Your task to perform on an android device: Open maps Image 0: 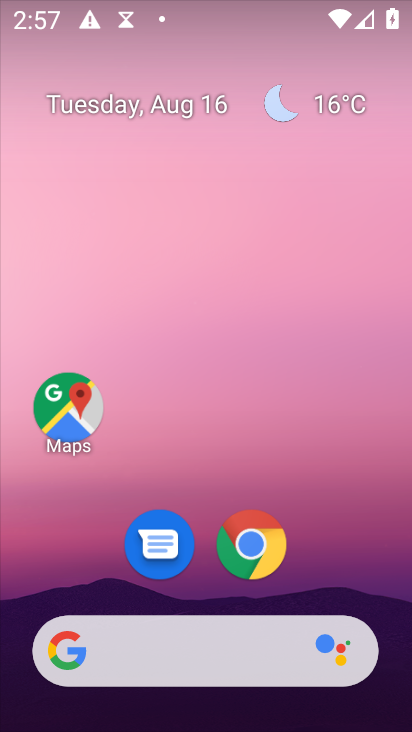
Step 0: drag from (212, 671) to (240, 97)
Your task to perform on an android device: Open maps Image 1: 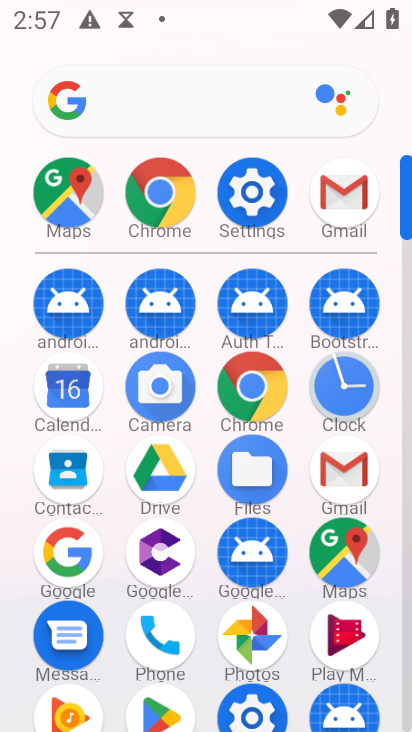
Step 1: click (66, 195)
Your task to perform on an android device: Open maps Image 2: 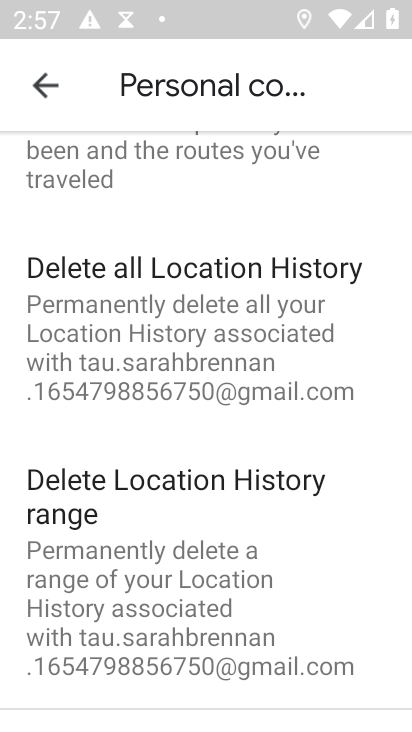
Step 2: task complete